Your task to perform on an android device: turn notification dots on Image 0: 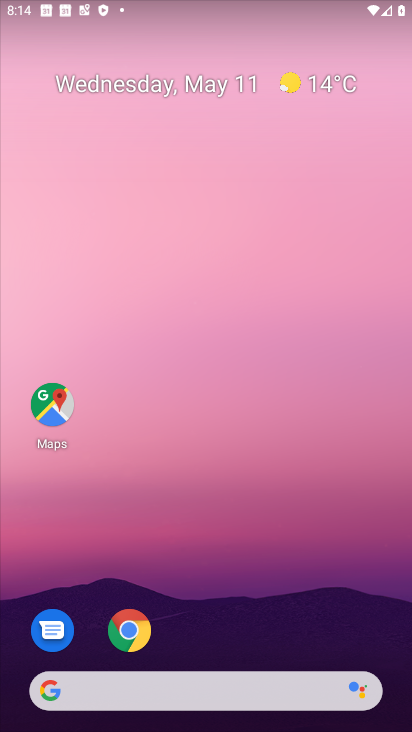
Step 0: drag from (237, 657) to (403, 1)
Your task to perform on an android device: turn notification dots on Image 1: 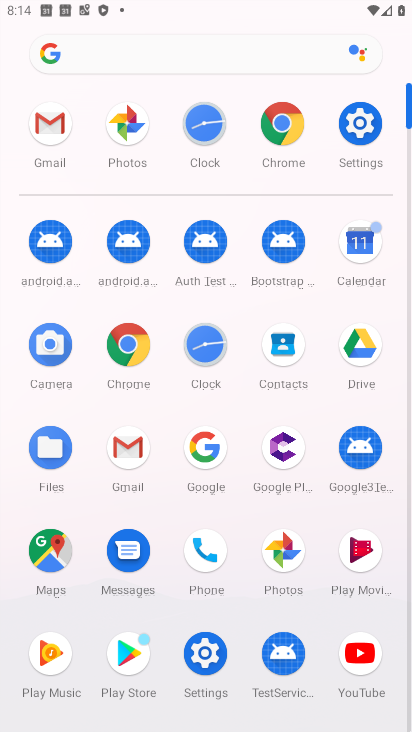
Step 1: click (357, 120)
Your task to perform on an android device: turn notification dots on Image 2: 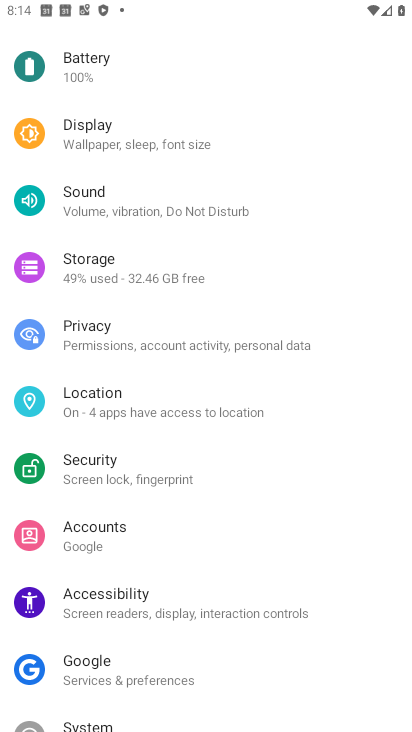
Step 2: drag from (177, 615) to (150, 358)
Your task to perform on an android device: turn notification dots on Image 3: 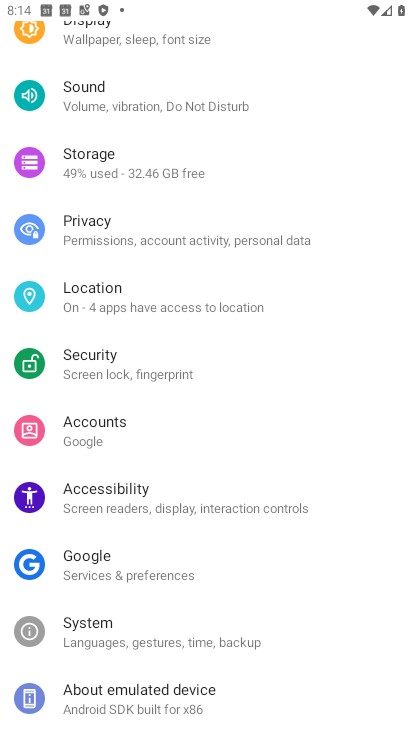
Step 3: drag from (146, 214) to (155, 668)
Your task to perform on an android device: turn notification dots on Image 4: 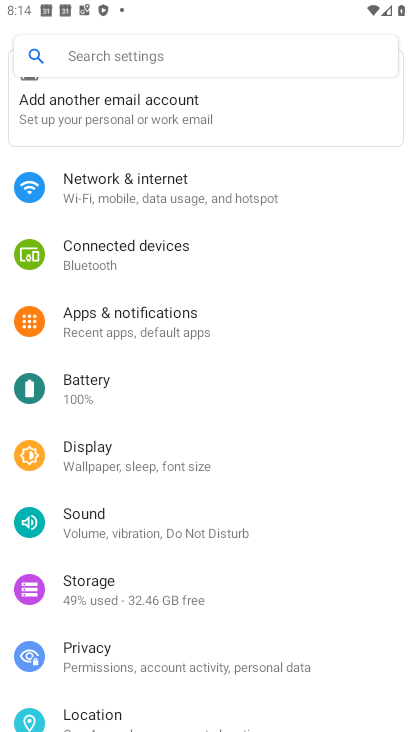
Step 4: click (135, 319)
Your task to perform on an android device: turn notification dots on Image 5: 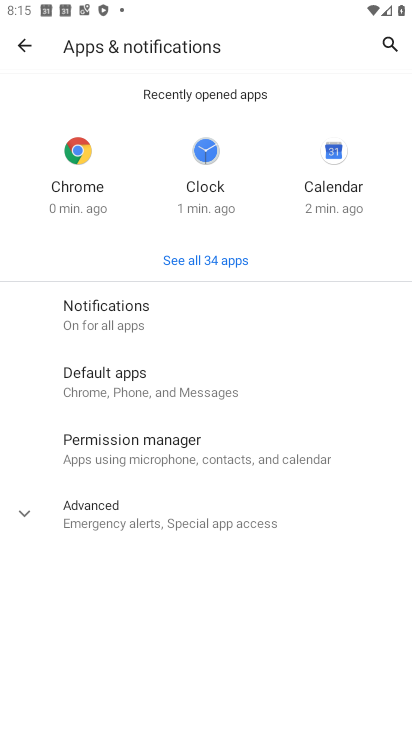
Step 5: click (135, 319)
Your task to perform on an android device: turn notification dots on Image 6: 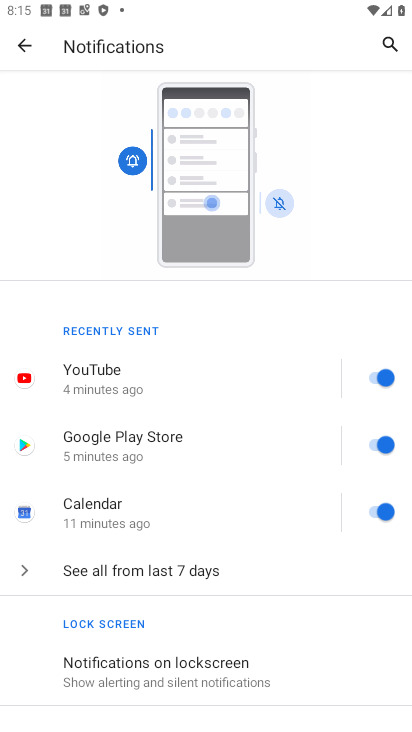
Step 6: drag from (199, 556) to (179, 38)
Your task to perform on an android device: turn notification dots on Image 7: 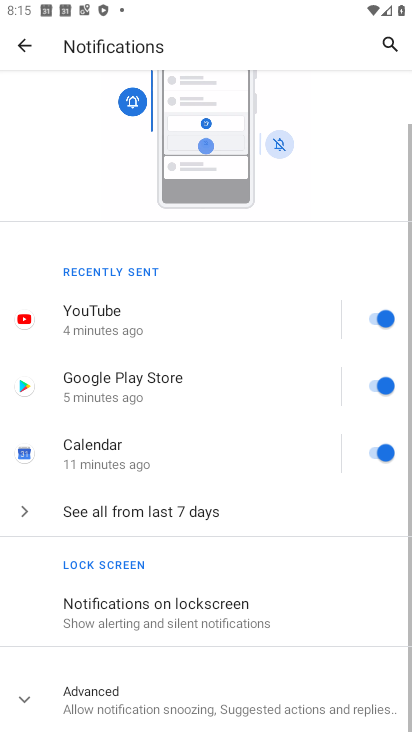
Step 7: click (183, 672)
Your task to perform on an android device: turn notification dots on Image 8: 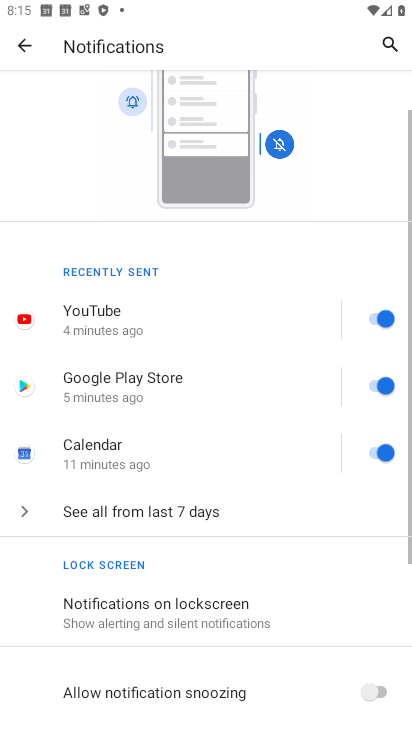
Step 8: task complete